Your task to perform on an android device: Open ESPN.com Image 0: 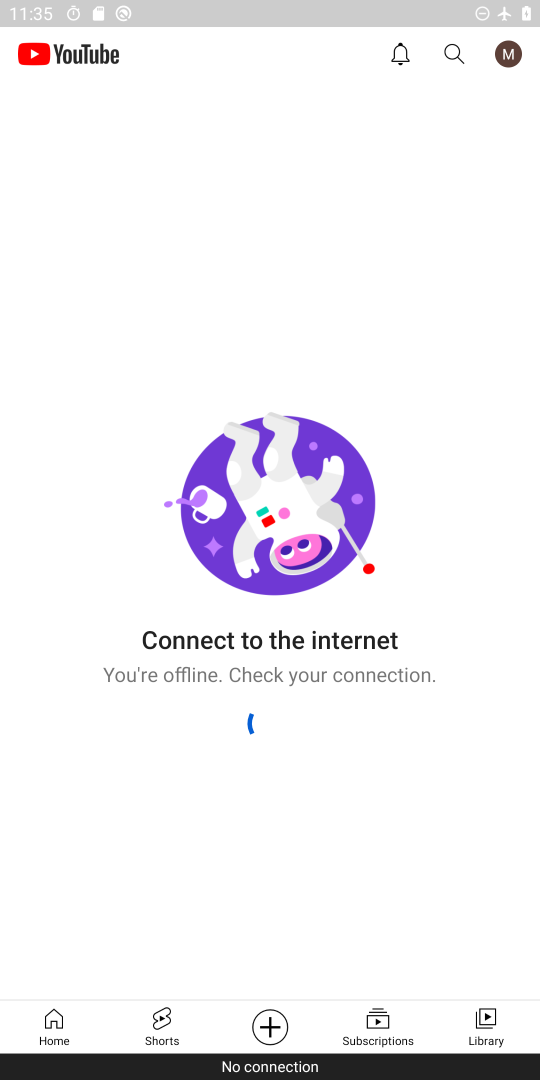
Step 0: press home button
Your task to perform on an android device: Open ESPN.com Image 1: 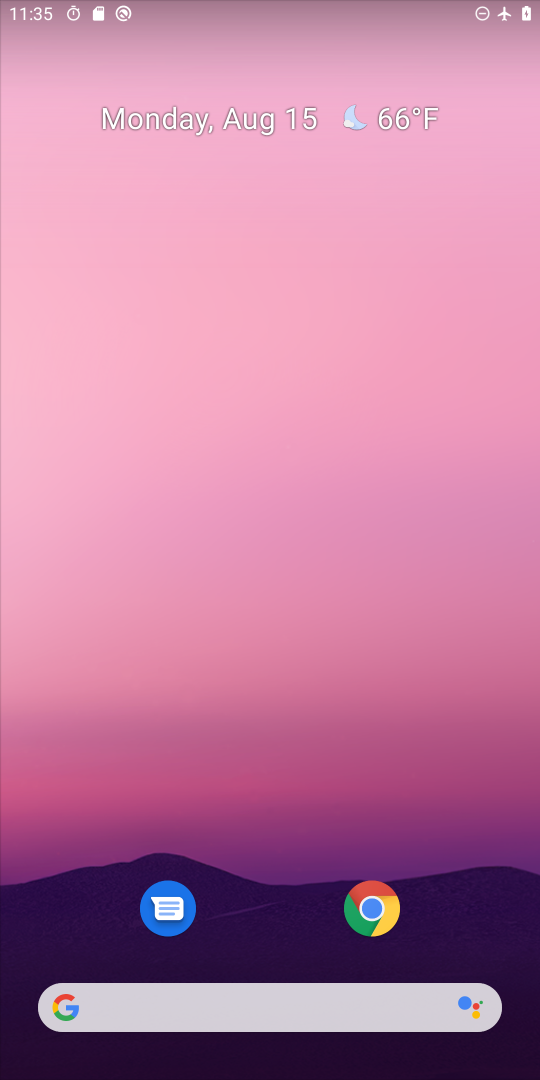
Step 1: click (358, 914)
Your task to perform on an android device: Open ESPN.com Image 2: 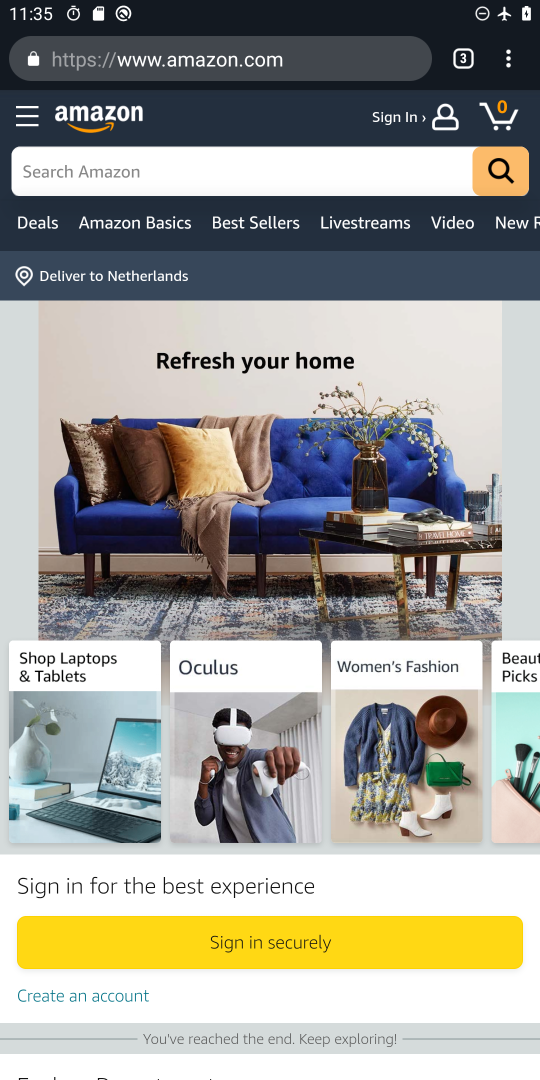
Step 2: click (458, 60)
Your task to perform on an android device: Open ESPN.com Image 3: 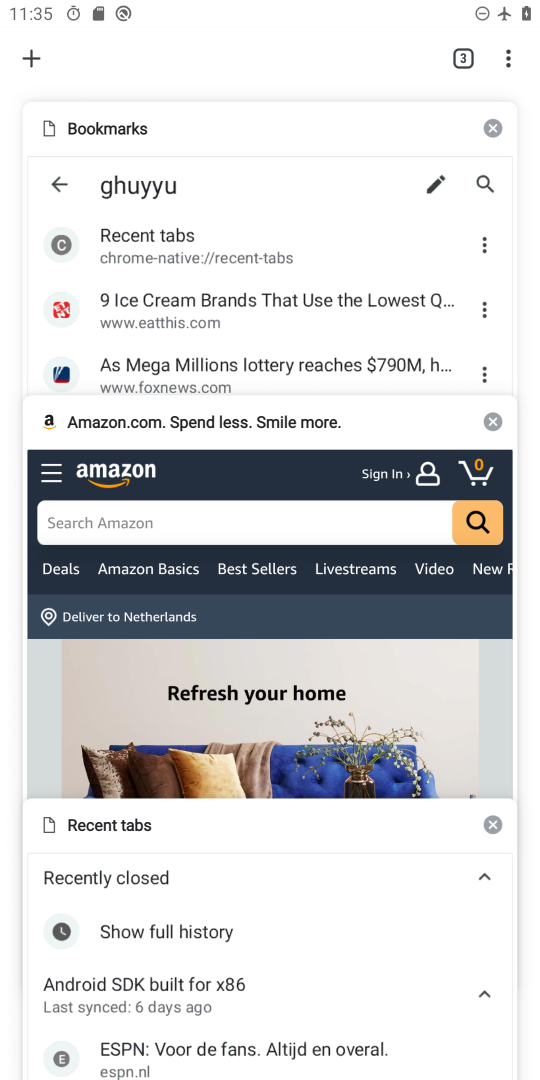
Step 3: click (36, 51)
Your task to perform on an android device: Open ESPN.com Image 4: 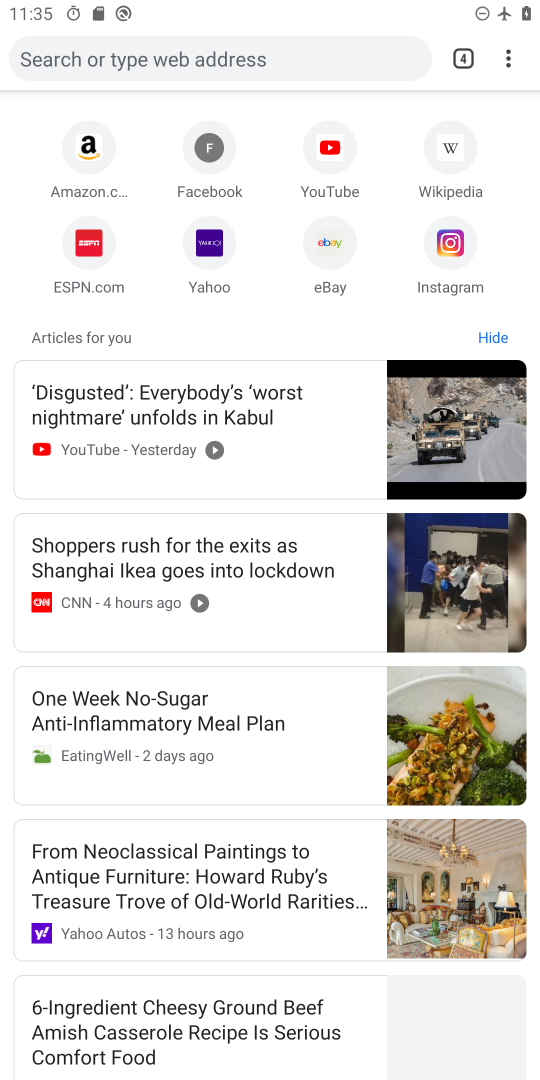
Step 4: click (94, 254)
Your task to perform on an android device: Open ESPN.com Image 5: 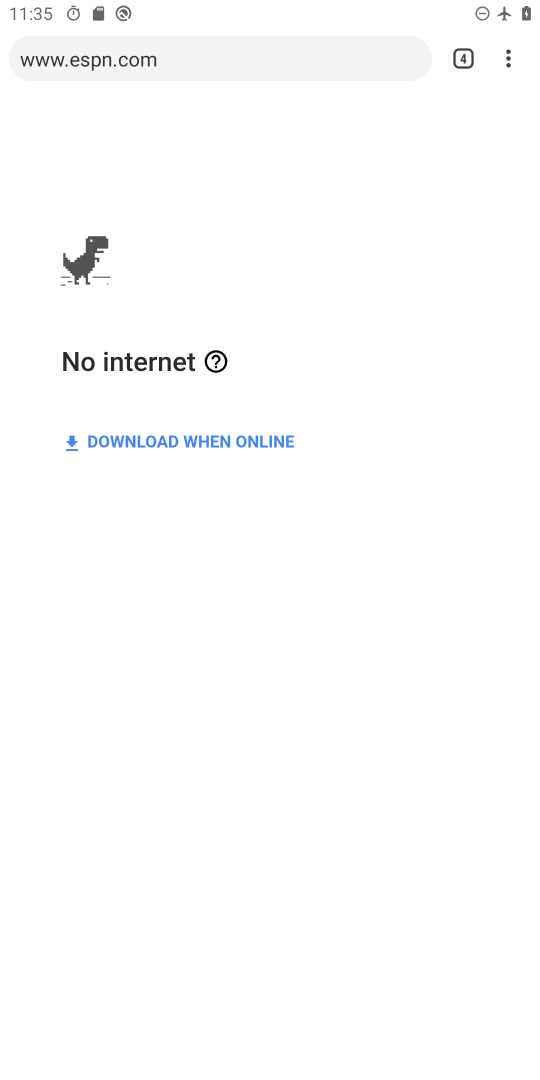
Step 5: drag from (304, 10) to (472, 688)
Your task to perform on an android device: Open ESPN.com Image 6: 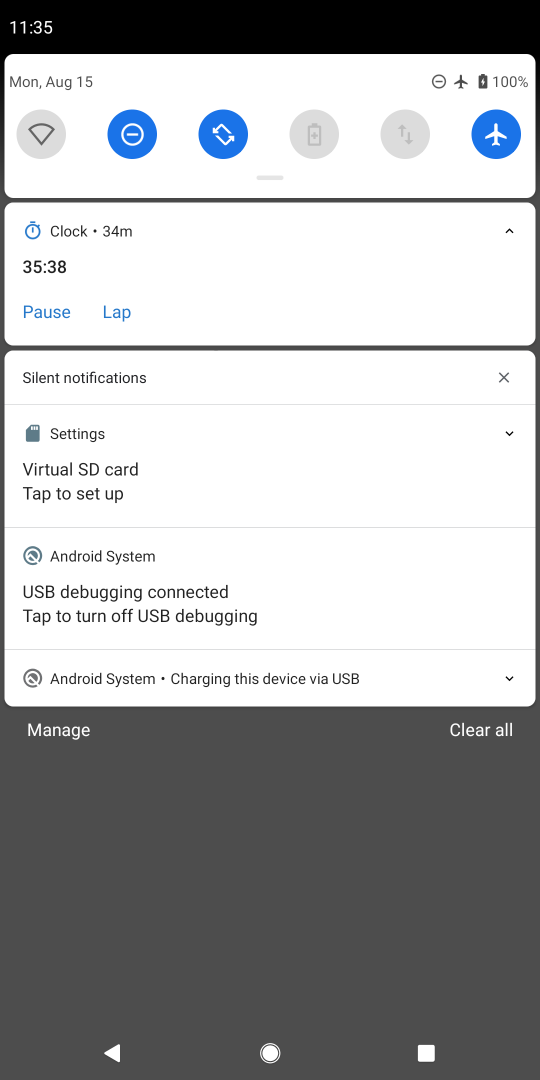
Step 6: click (484, 112)
Your task to perform on an android device: Open ESPN.com Image 7: 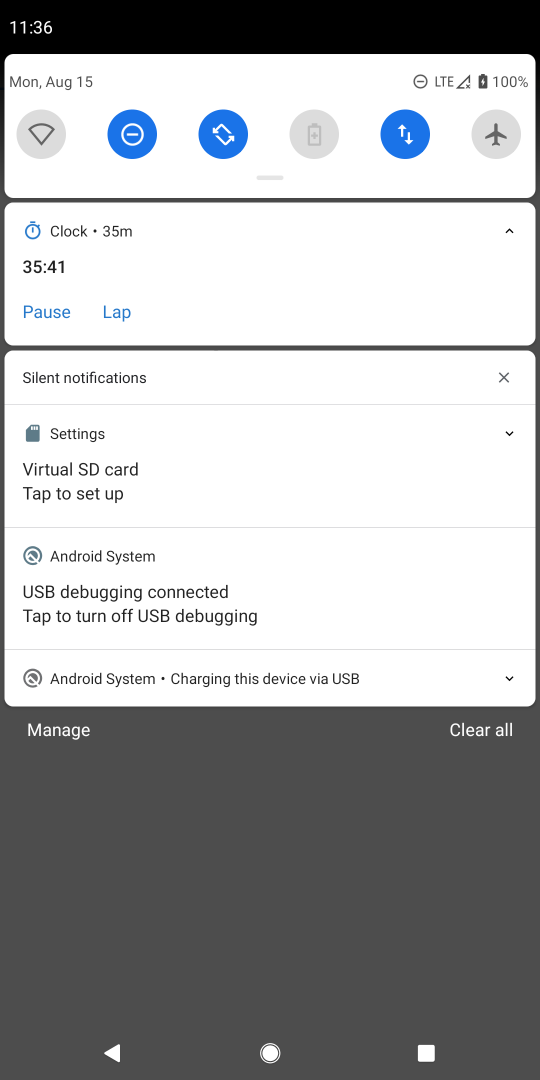
Step 7: task complete